Your task to perform on an android device: Open calendar and show me the fourth week of next month Image 0: 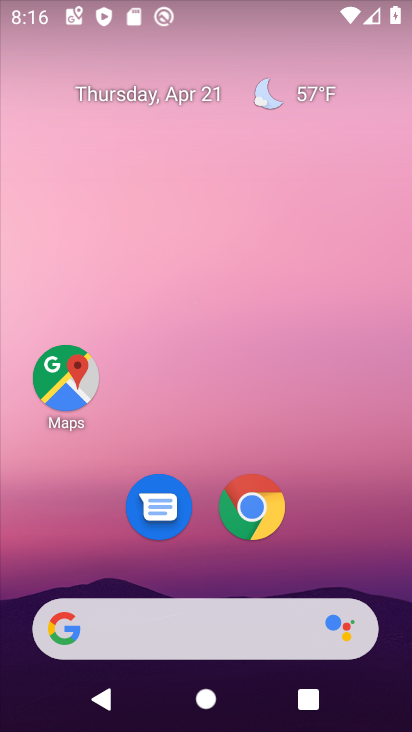
Step 0: drag from (355, 461) to (287, 0)
Your task to perform on an android device: Open calendar and show me the fourth week of next month Image 1: 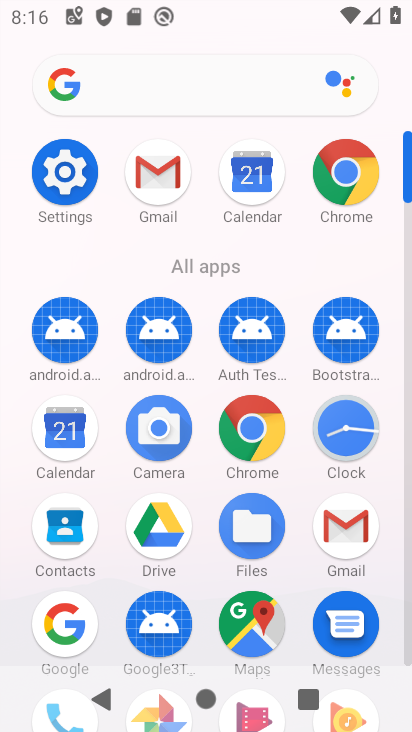
Step 1: click (249, 176)
Your task to perform on an android device: Open calendar and show me the fourth week of next month Image 2: 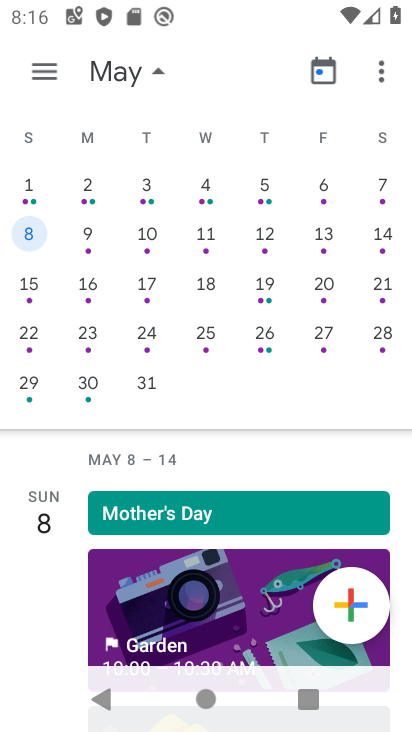
Step 2: click (32, 329)
Your task to perform on an android device: Open calendar and show me the fourth week of next month Image 3: 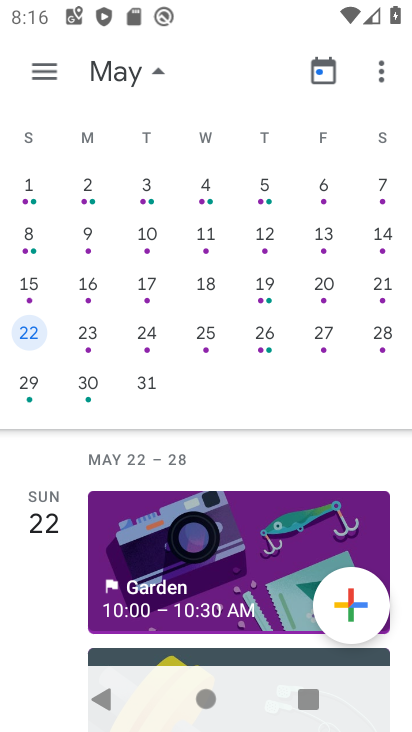
Step 3: task complete